Your task to perform on an android device: open wifi settings Image 0: 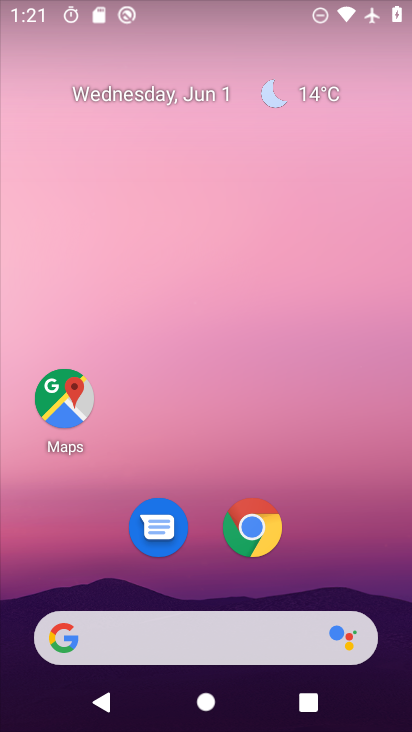
Step 0: drag from (201, 649) to (235, 112)
Your task to perform on an android device: open wifi settings Image 1: 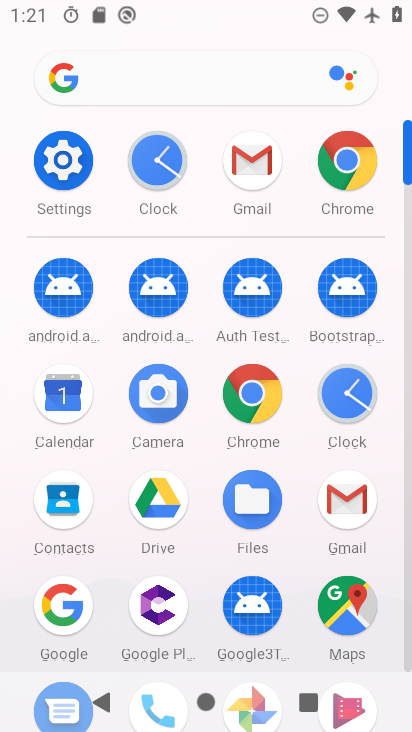
Step 1: click (77, 181)
Your task to perform on an android device: open wifi settings Image 2: 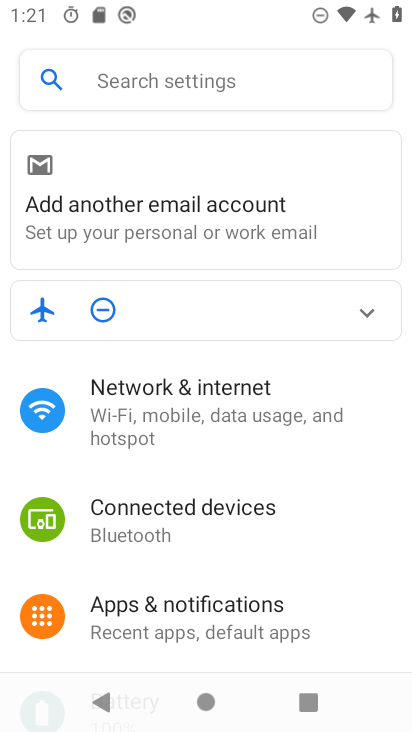
Step 2: click (176, 409)
Your task to perform on an android device: open wifi settings Image 3: 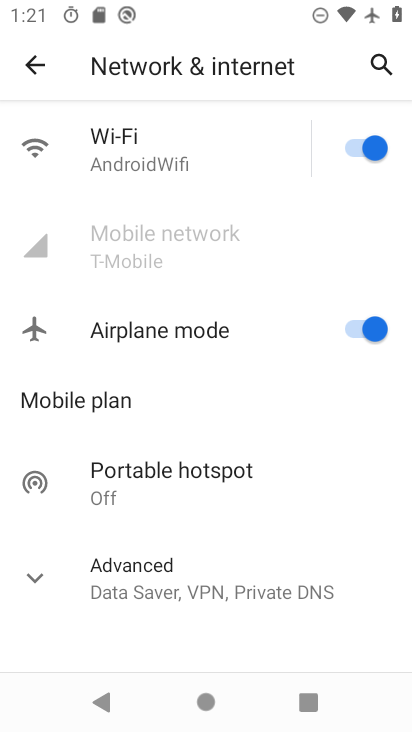
Step 3: click (153, 153)
Your task to perform on an android device: open wifi settings Image 4: 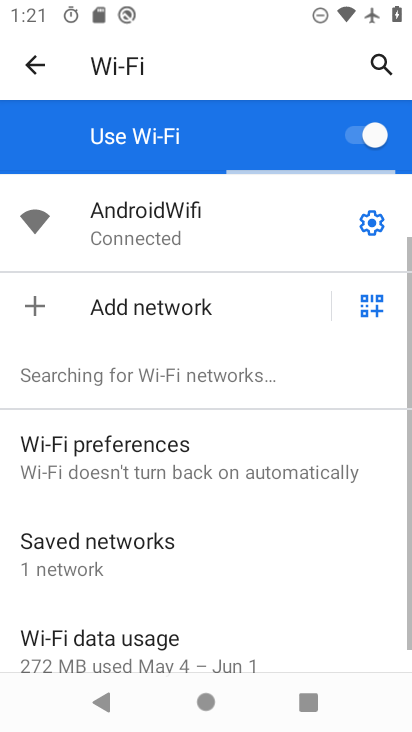
Step 4: task complete